Your task to perform on an android device: Open calendar and show me the first week of next month Image 0: 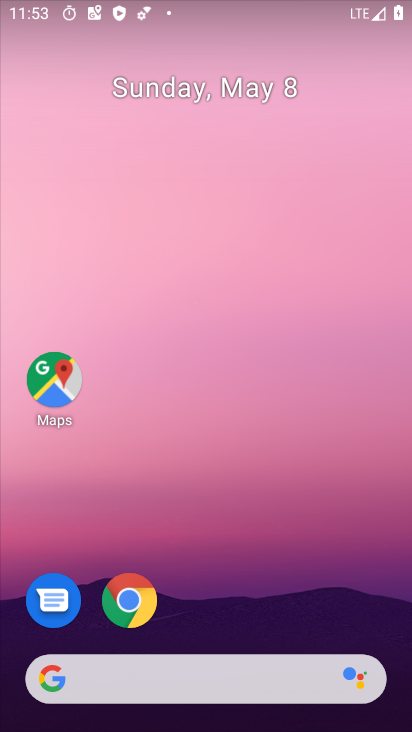
Step 0: drag from (269, 566) to (236, 315)
Your task to perform on an android device: Open calendar and show me the first week of next month Image 1: 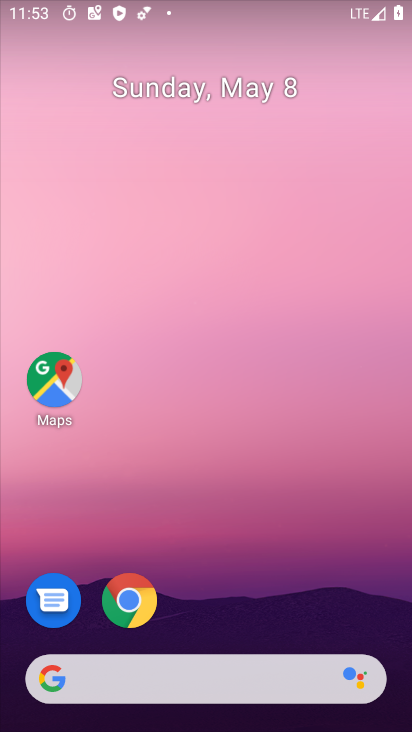
Step 1: drag from (279, 565) to (281, 206)
Your task to perform on an android device: Open calendar and show me the first week of next month Image 2: 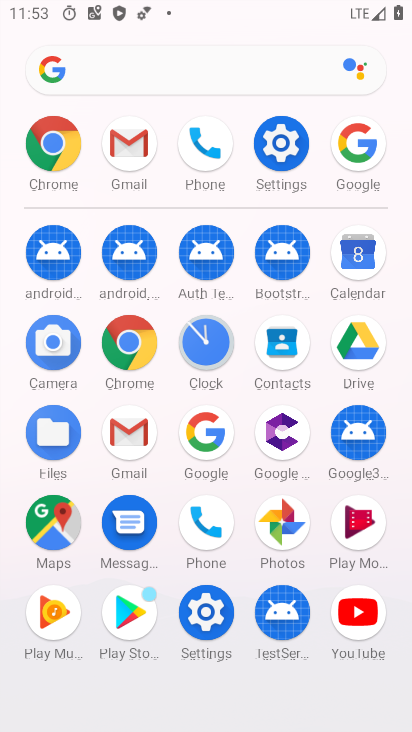
Step 2: click (364, 269)
Your task to perform on an android device: Open calendar and show me the first week of next month Image 3: 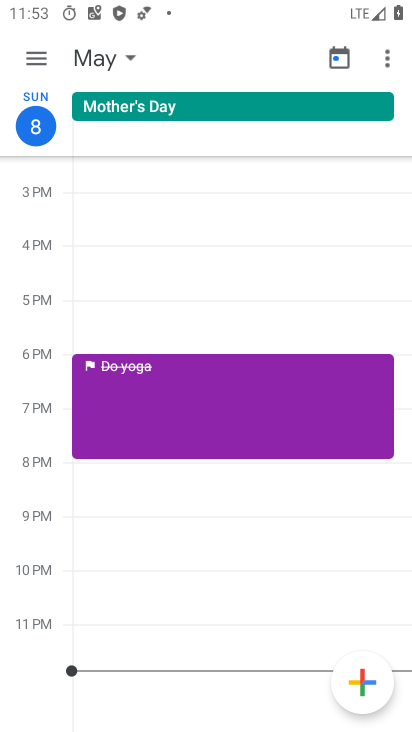
Step 3: click (135, 51)
Your task to perform on an android device: Open calendar and show me the first week of next month Image 4: 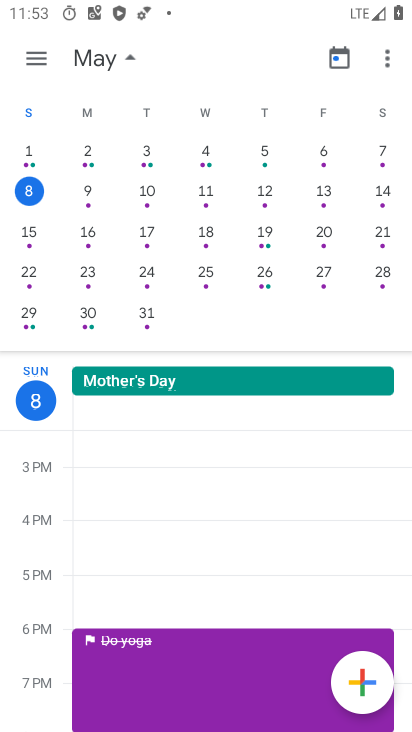
Step 4: drag from (354, 234) to (0, 280)
Your task to perform on an android device: Open calendar and show me the first week of next month Image 5: 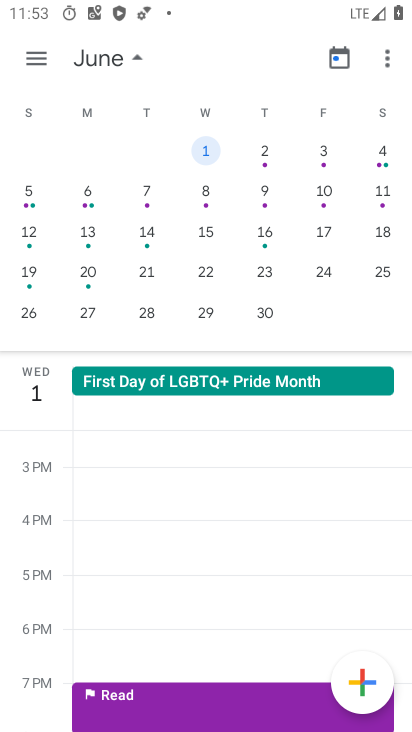
Step 5: click (27, 63)
Your task to perform on an android device: Open calendar and show me the first week of next month Image 6: 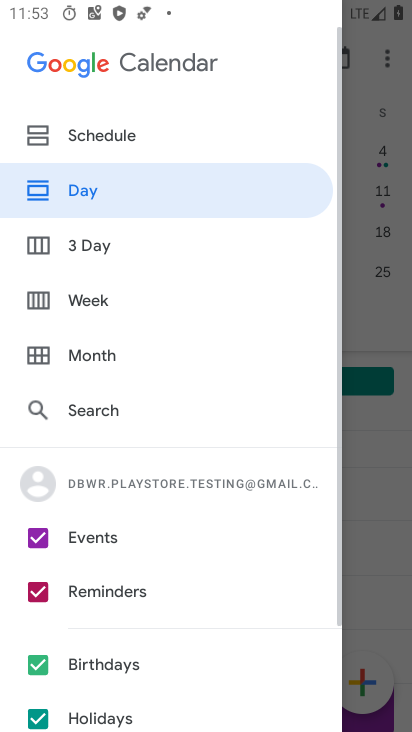
Step 6: click (112, 318)
Your task to perform on an android device: Open calendar and show me the first week of next month Image 7: 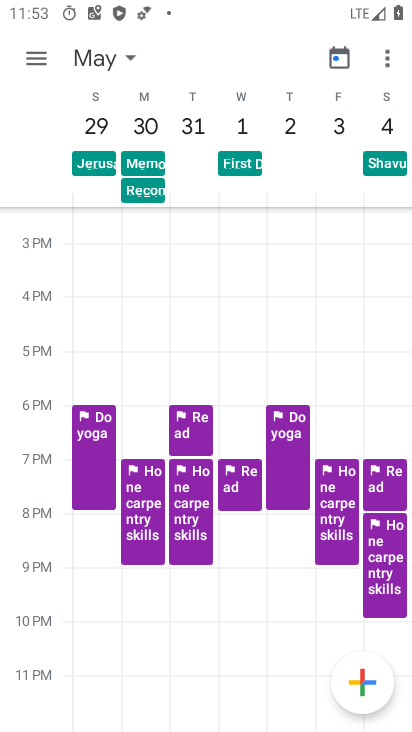
Step 7: task complete